Your task to perform on an android device: add a label to a message in the gmail app Image 0: 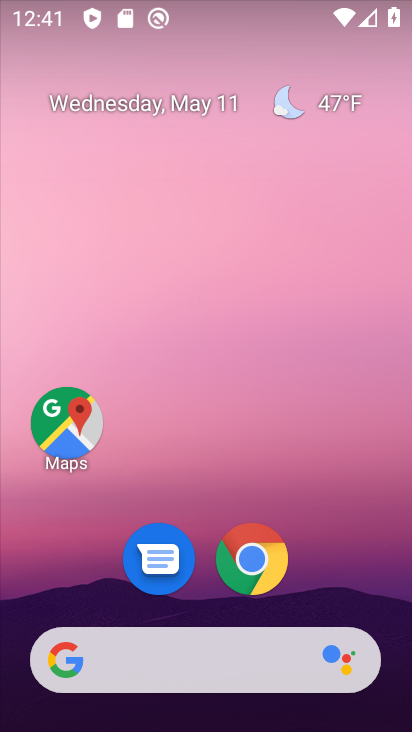
Step 0: drag from (200, 604) to (124, 0)
Your task to perform on an android device: add a label to a message in the gmail app Image 1: 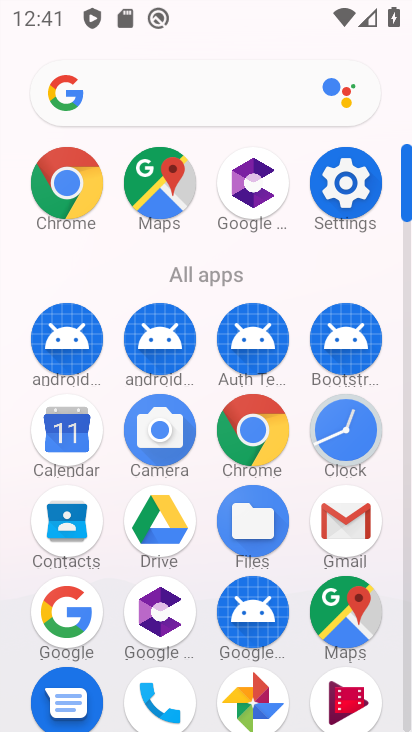
Step 1: click (349, 536)
Your task to perform on an android device: add a label to a message in the gmail app Image 2: 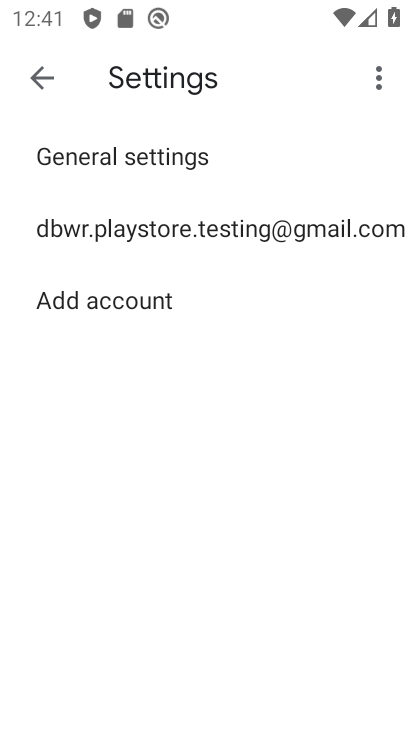
Step 2: click (25, 65)
Your task to perform on an android device: add a label to a message in the gmail app Image 3: 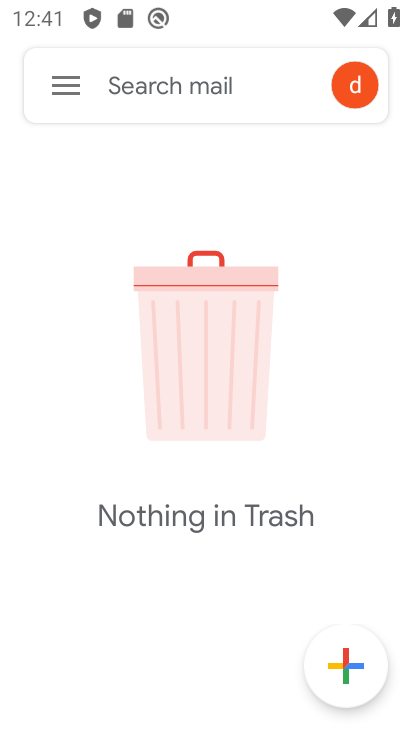
Step 3: click (67, 89)
Your task to perform on an android device: add a label to a message in the gmail app Image 4: 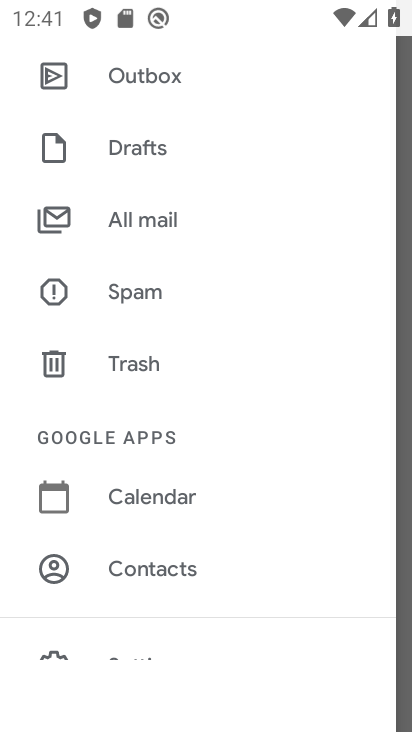
Step 4: click (158, 208)
Your task to perform on an android device: add a label to a message in the gmail app Image 5: 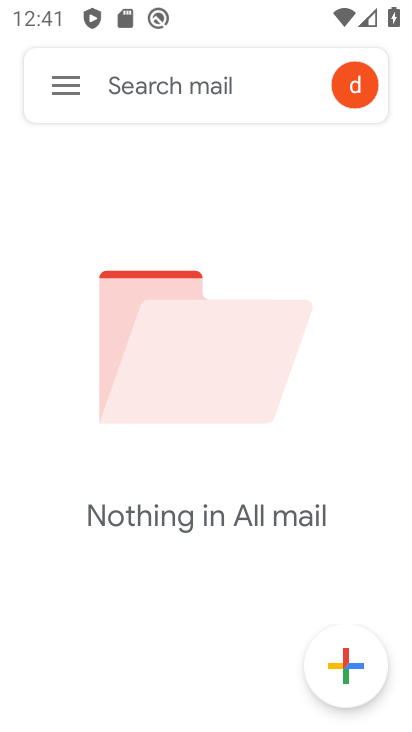
Step 5: task complete